Your task to perform on an android device: Go to accessibility settings Image 0: 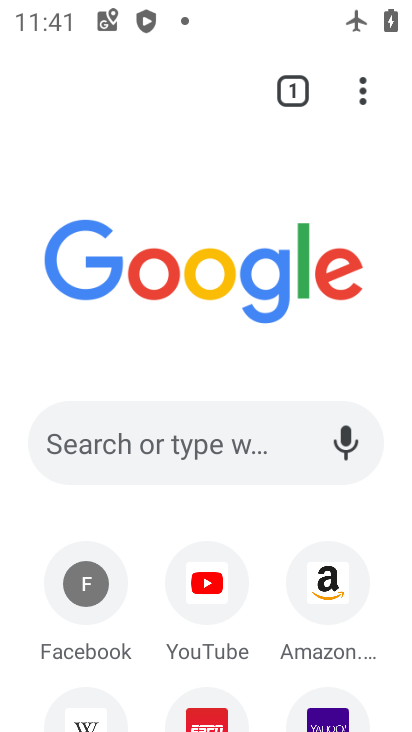
Step 0: press home button
Your task to perform on an android device: Go to accessibility settings Image 1: 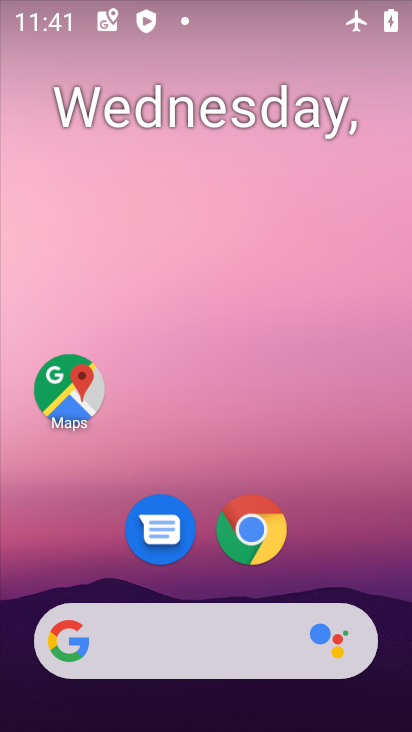
Step 1: drag from (244, 598) to (209, 34)
Your task to perform on an android device: Go to accessibility settings Image 2: 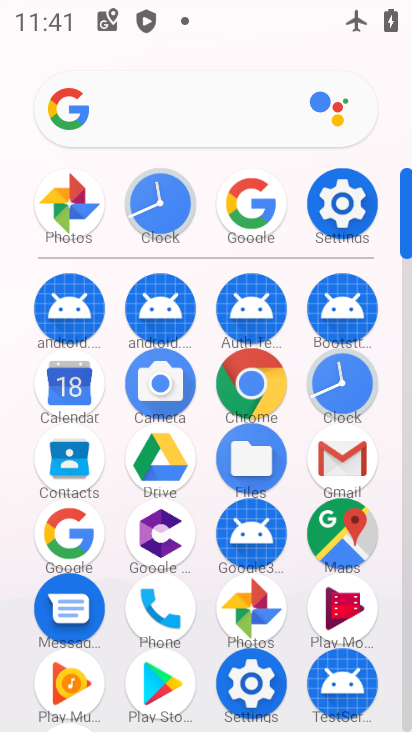
Step 2: click (332, 175)
Your task to perform on an android device: Go to accessibility settings Image 3: 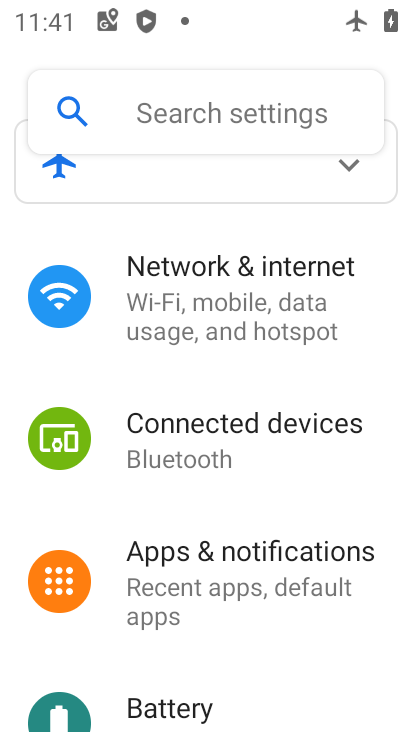
Step 3: drag from (217, 630) to (181, 174)
Your task to perform on an android device: Go to accessibility settings Image 4: 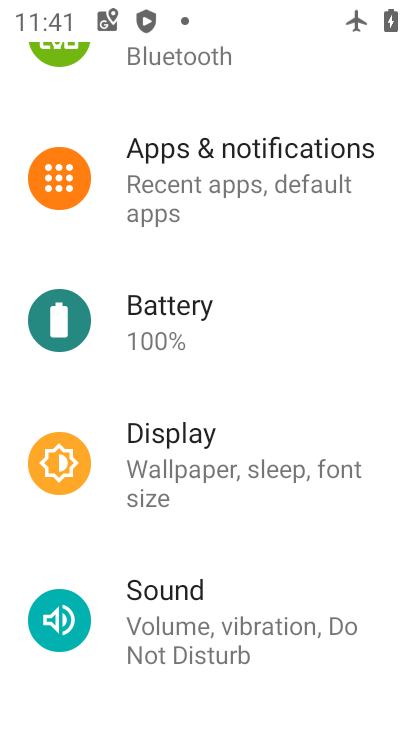
Step 4: drag from (239, 576) to (188, 161)
Your task to perform on an android device: Go to accessibility settings Image 5: 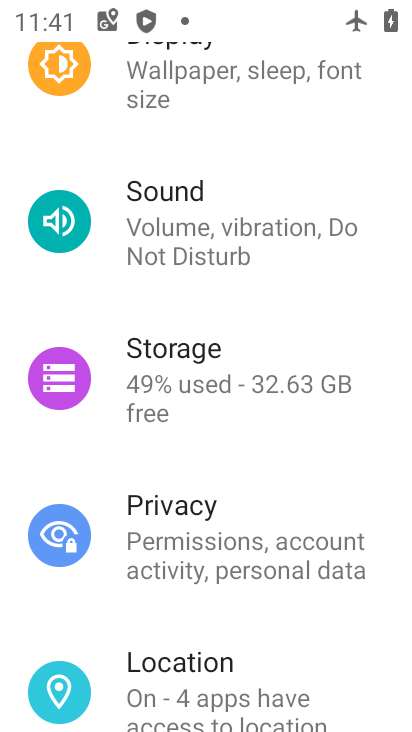
Step 5: drag from (280, 532) to (237, 141)
Your task to perform on an android device: Go to accessibility settings Image 6: 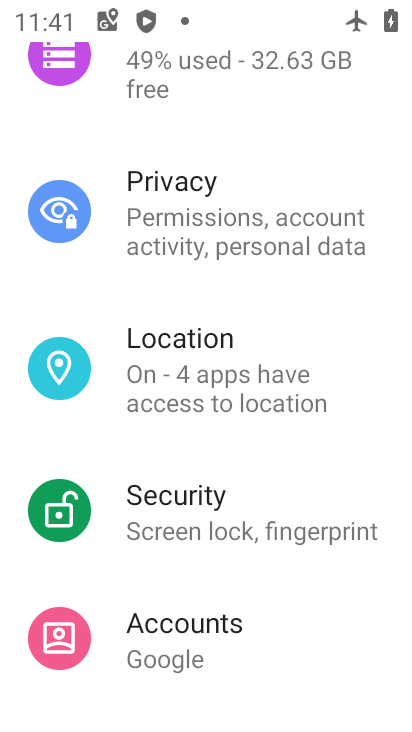
Step 6: drag from (236, 605) to (171, 212)
Your task to perform on an android device: Go to accessibility settings Image 7: 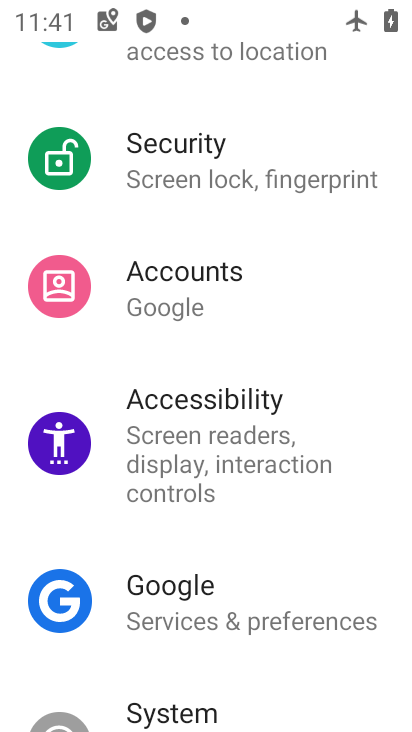
Step 7: click (213, 434)
Your task to perform on an android device: Go to accessibility settings Image 8: 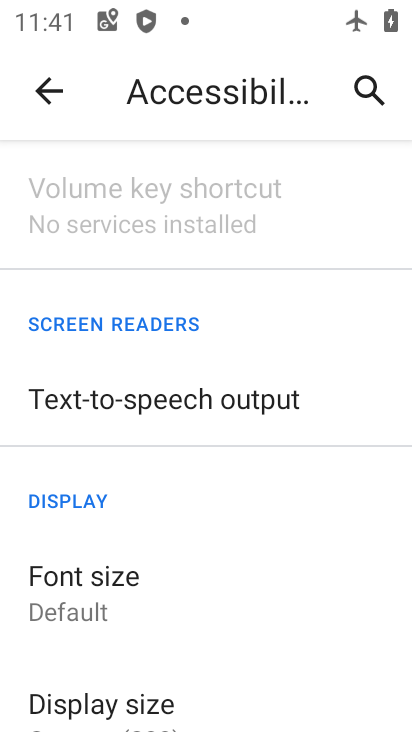
Step 8: task complete